Your task to perform on an android device: open device folders in google photos Image 0: 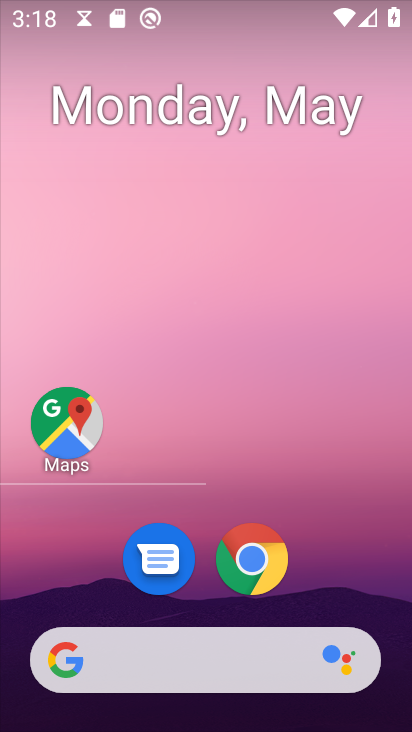
Step 0: drag from (322, 618) to (349, 363)
Your task to perform on an android device: open device folders in google photos Image 1: 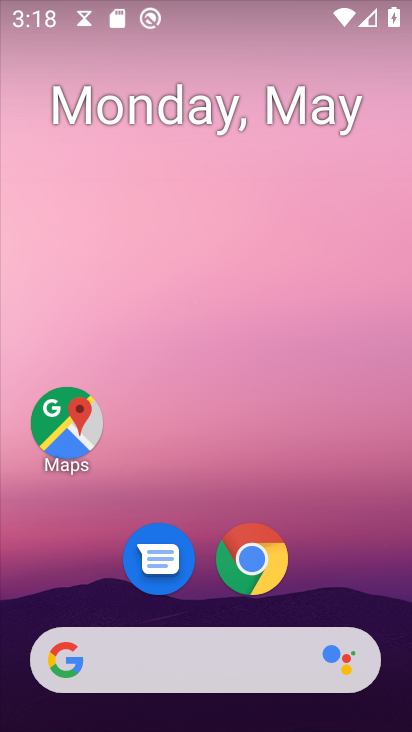
Step 1: drag from (302, 534) to (342, 222)
Your task to perform on an android device: open device folders in google photos Image 2: 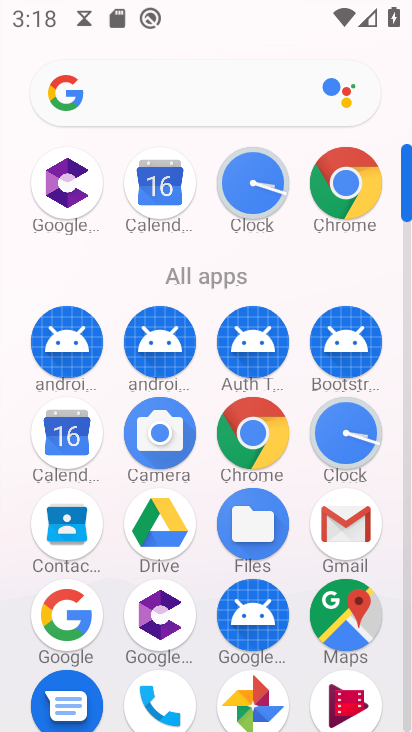
Step 2: click (252, 693)
Your task to perform on an android device: open device folders in google photos Image 3: 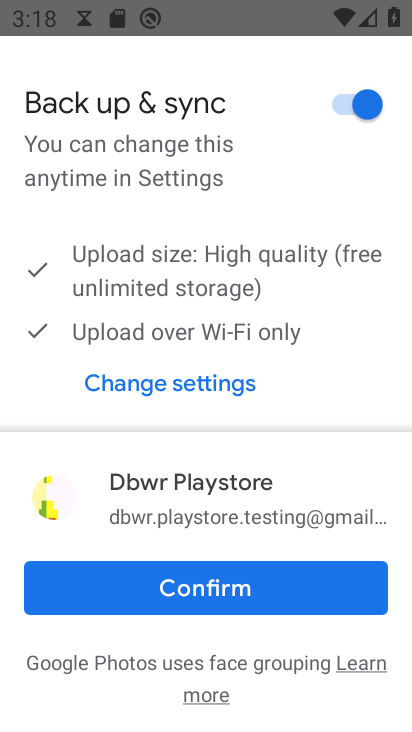
Step 3: click (206, 582)
Your task to perform on an android device: open device folders in google photos Image 4: 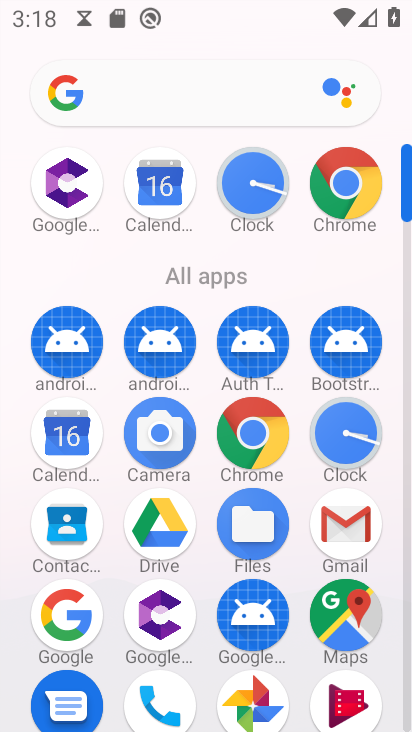
Step 4: click (228, 680)
Your task to perform on an android device: open device folders in google photos Image 5: 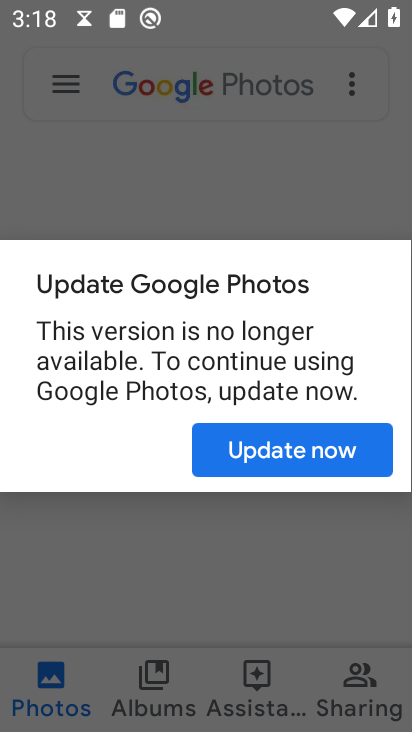
Step 5: click (288, 444)
Your task to perform on an android device: open device folders in google photos Image 6: 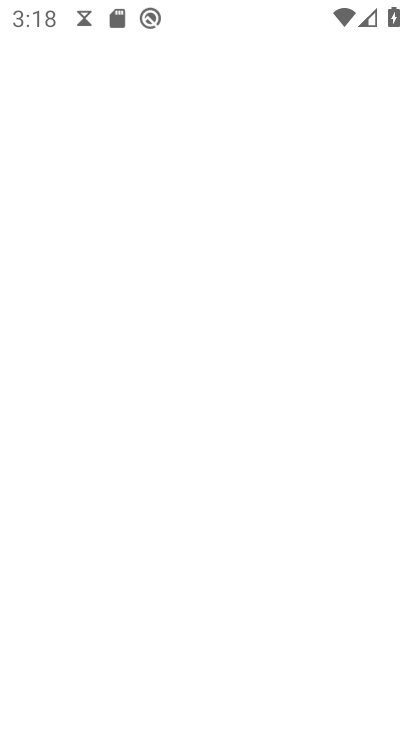
Step 6: press back button
Your task to perform on an android device: open device folders in google photos Image 7: 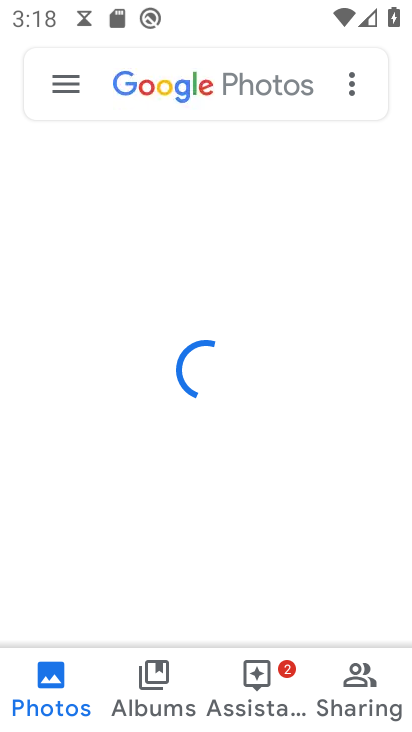
Step 7: click (158, 686)
Your task to perform on an android device: open device folders in google photos Image 8: 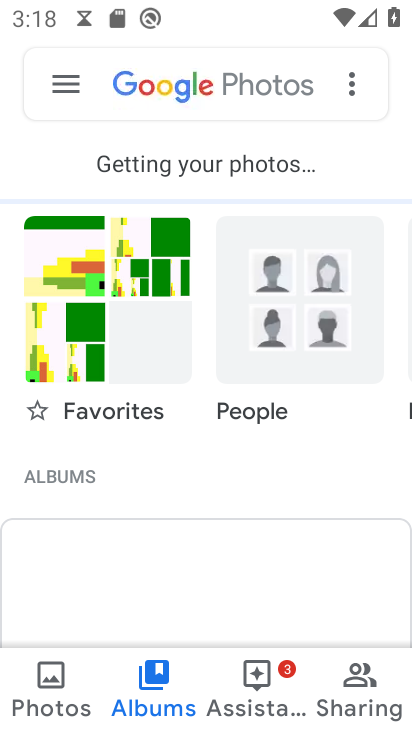
Step 8: click (85, 279)
Your task to perform on an android device: open device folders in google photos Image 9: 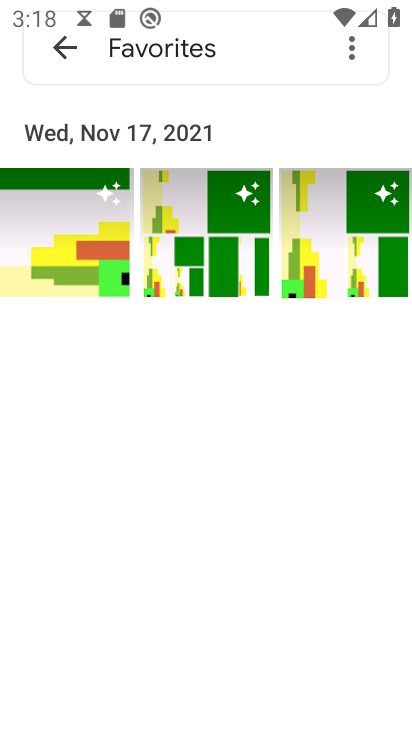
Step 9: task complete